Your task to perform on an android device: visit the assistant section in the google photos Image 0: 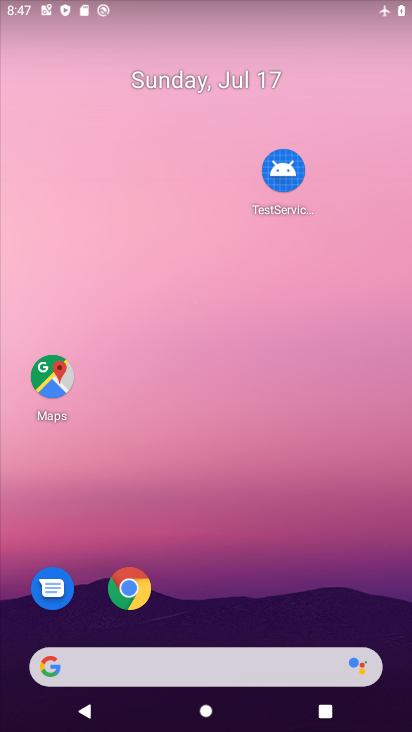
Step 0: press home button
Your task to perform on an android device: visit the assistant section in the google photos Image 1: 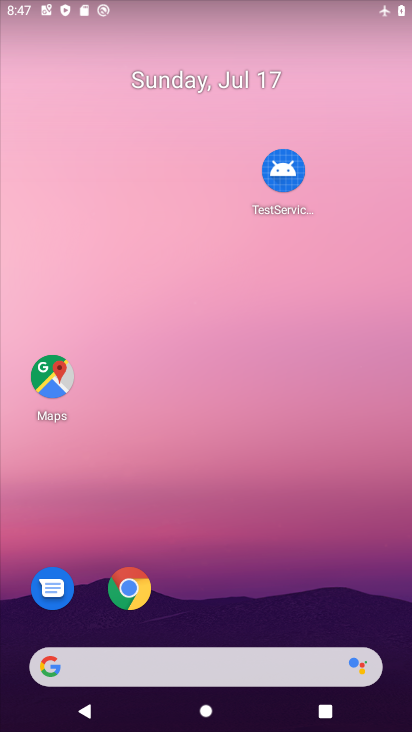
Step 1: drag from (217, 625) to (264, 137)
Your task to perform on an android device: visit the assistant section in the google photos Image 2: 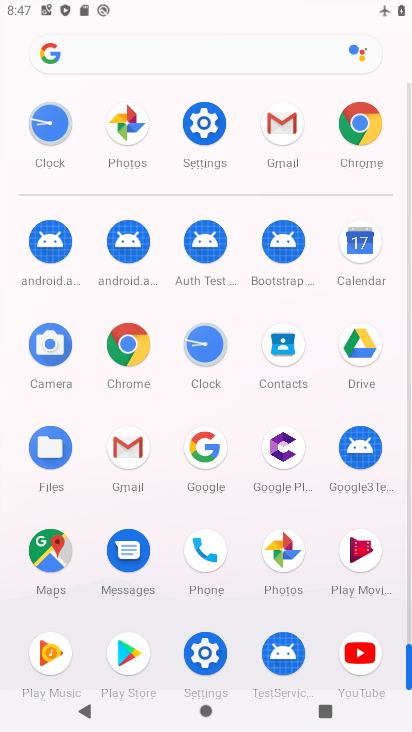
Step 2: click (268, 566)
Your task to perform on an android device: visit the assistant section in the google photos Image 3: 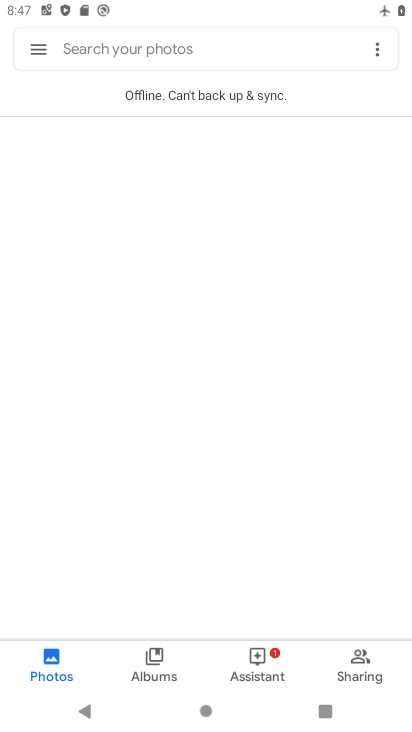
Step 3: click (268, 667)
Your task to perform on an android device: visit the assistant section in the google photos Image 4: 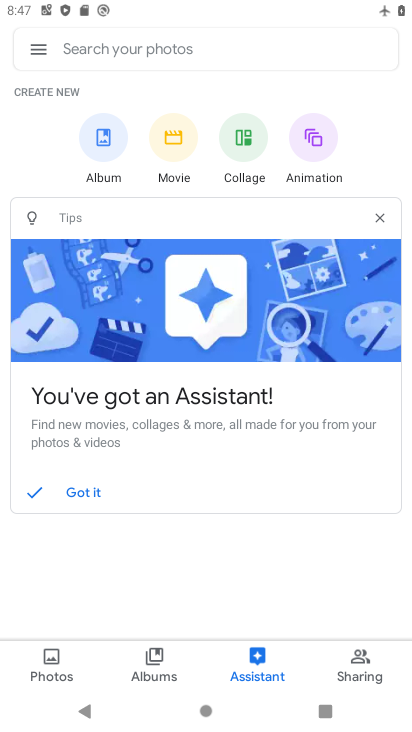
Step 4: task complete